Your task to perform on an android device: Play the last video I watched on Youtube Image 0: 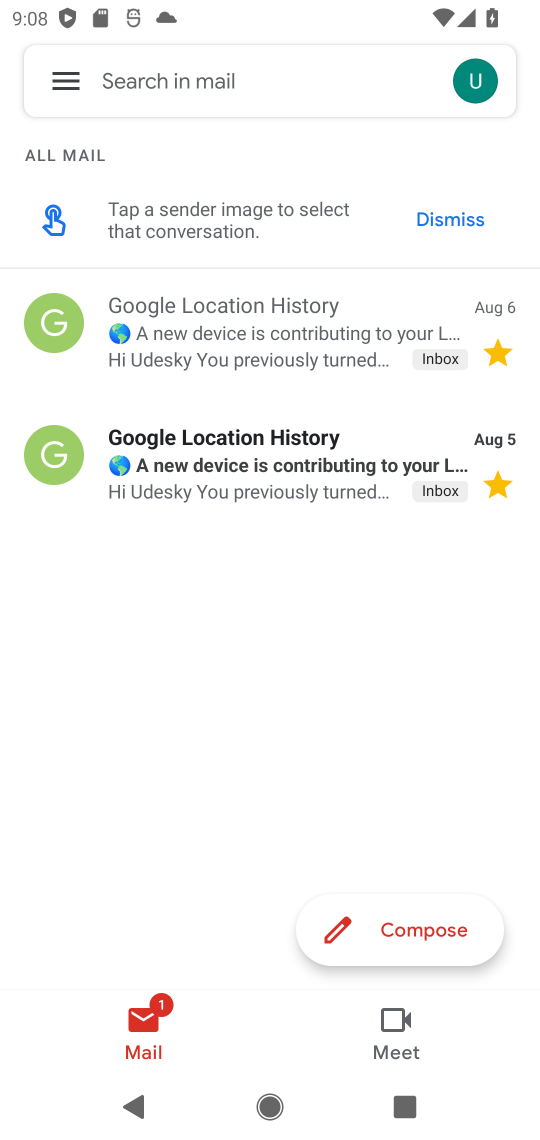
Step 0: press home button
Your task to perform on an android device: Play the last video I watched on Youtube Image 1: 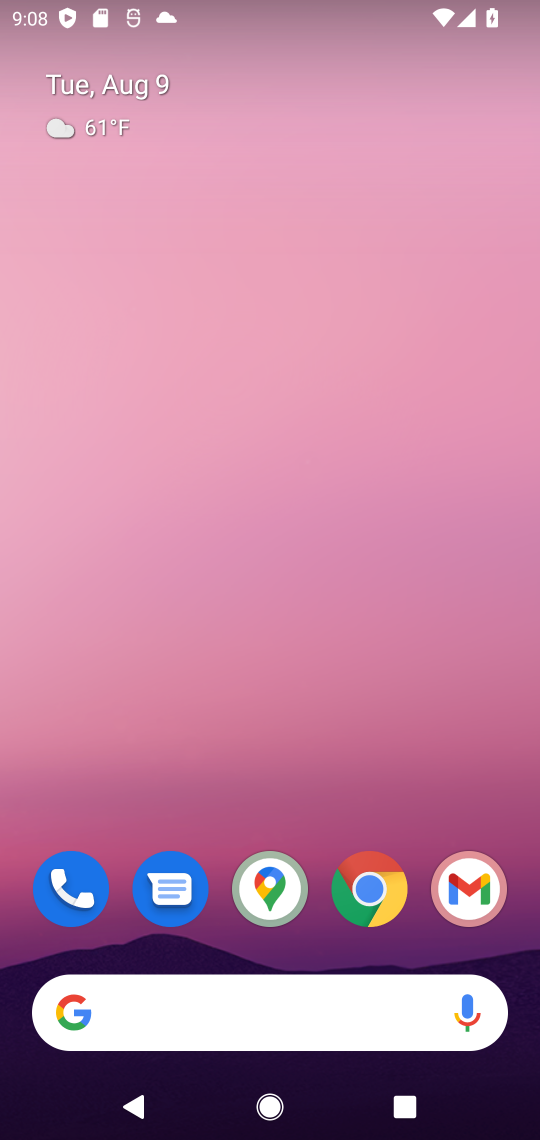
Step 1: drag from (367, 868) to (360, 208)
Your task to perform on an android device: Play the last video I watched on Youtube Image 2: 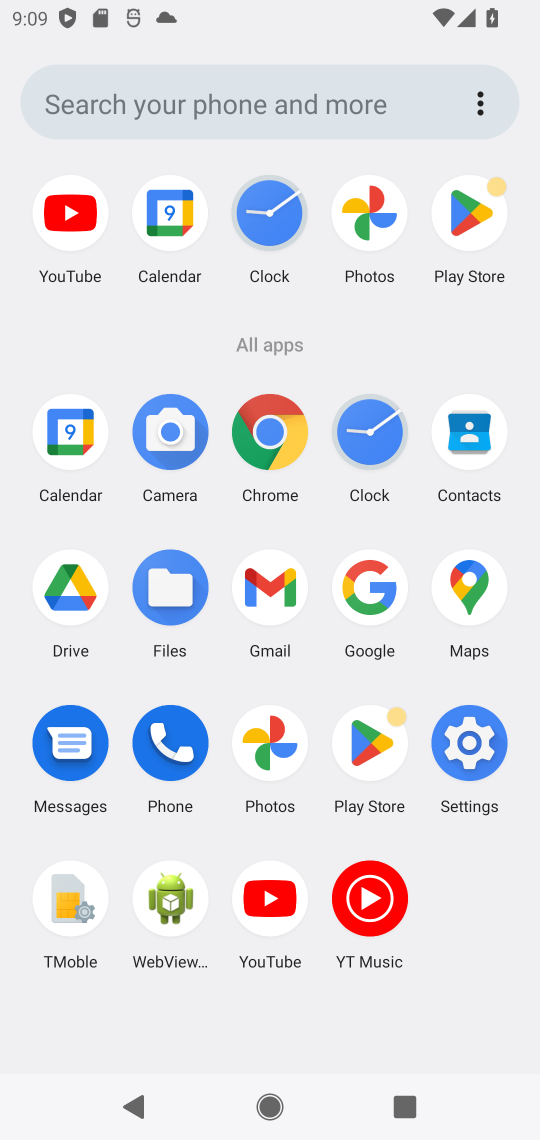
Step 2: click (187, 912)
Your task to perform on an android device: Play the last video I watched on Youtube Image 3: 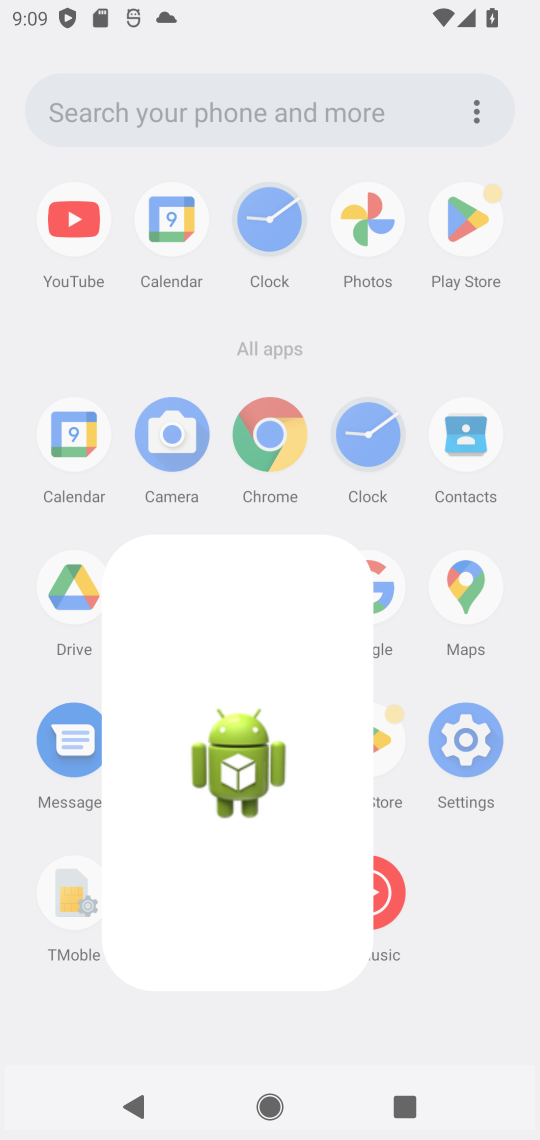
Step 3: click (250, 908)
Your task to perform on an android device: Play the last video I watched on Youtube Image 4: 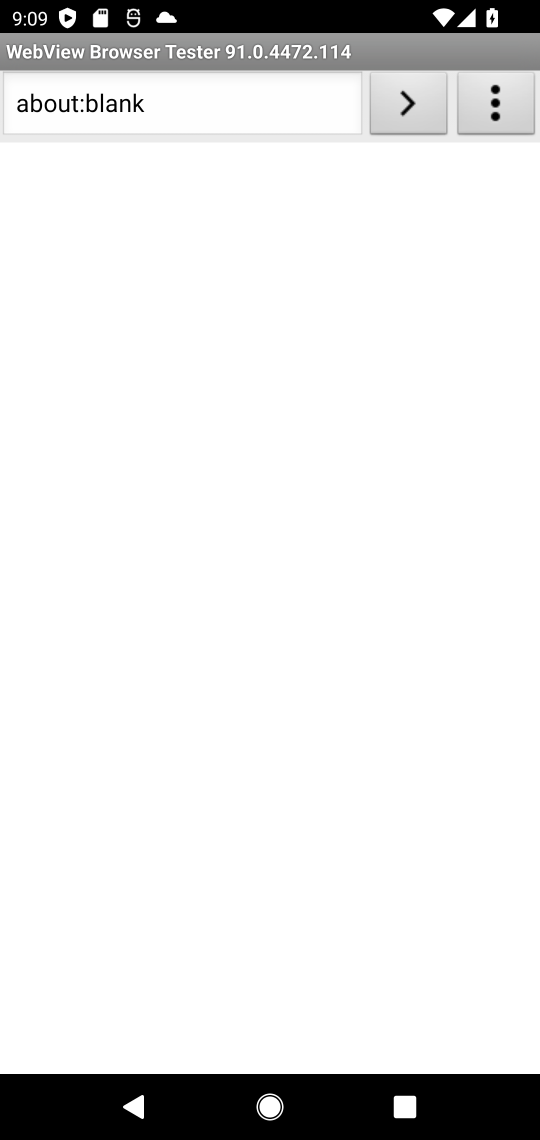
Step 4: press back button
Your task to perform on an android device: Play the last video I watched on Youtube Image 5: 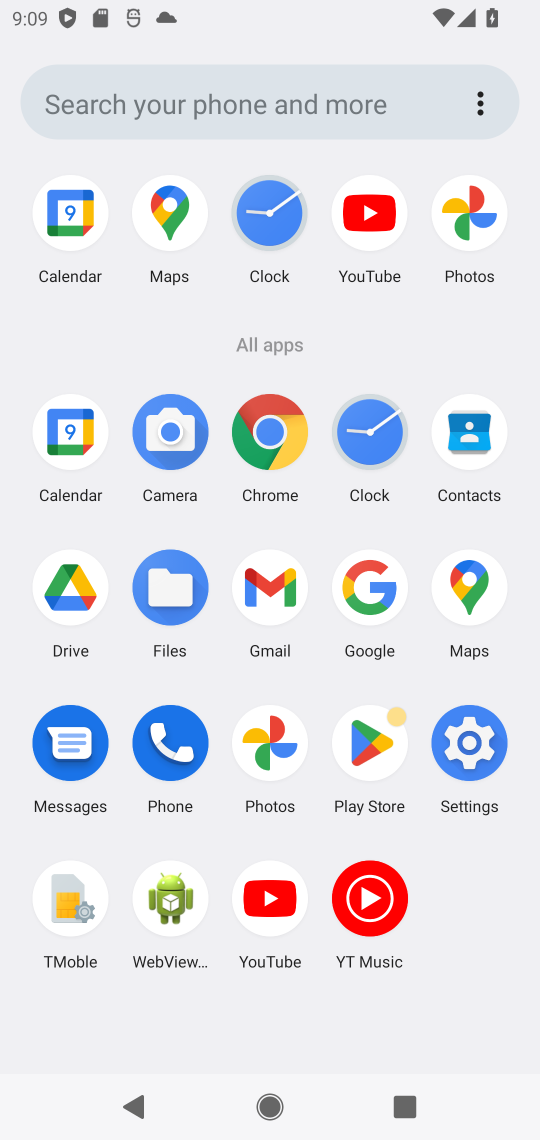
Step 5: click (289, 910)
Your task to perform on an android device: Play the last video I watched on Youtube Image 6: 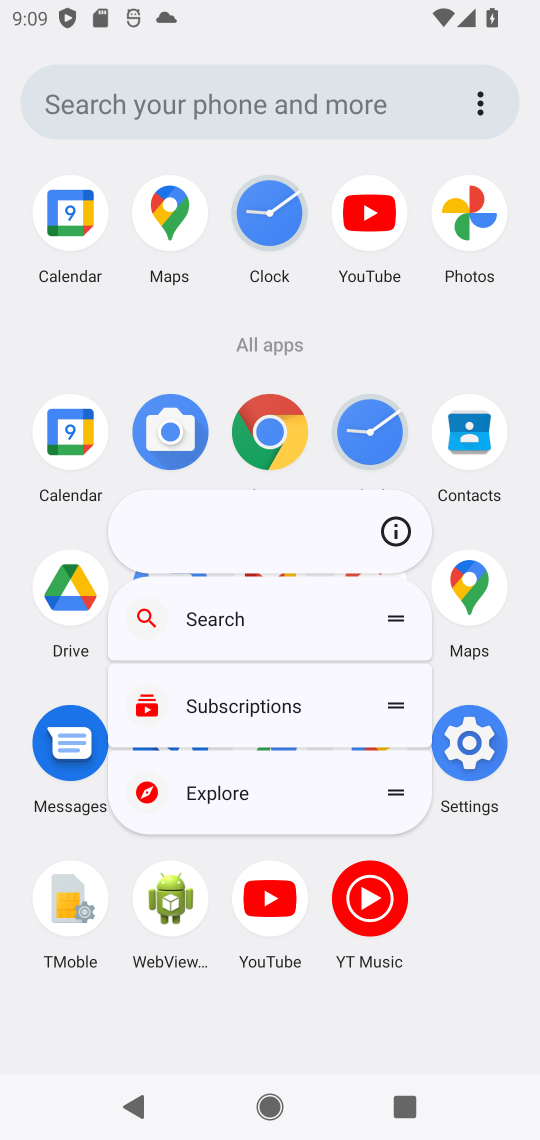
Step 6: click (275, 894)
Your task to perform on an android device: Play the last video I watched on Youtube Image 7: 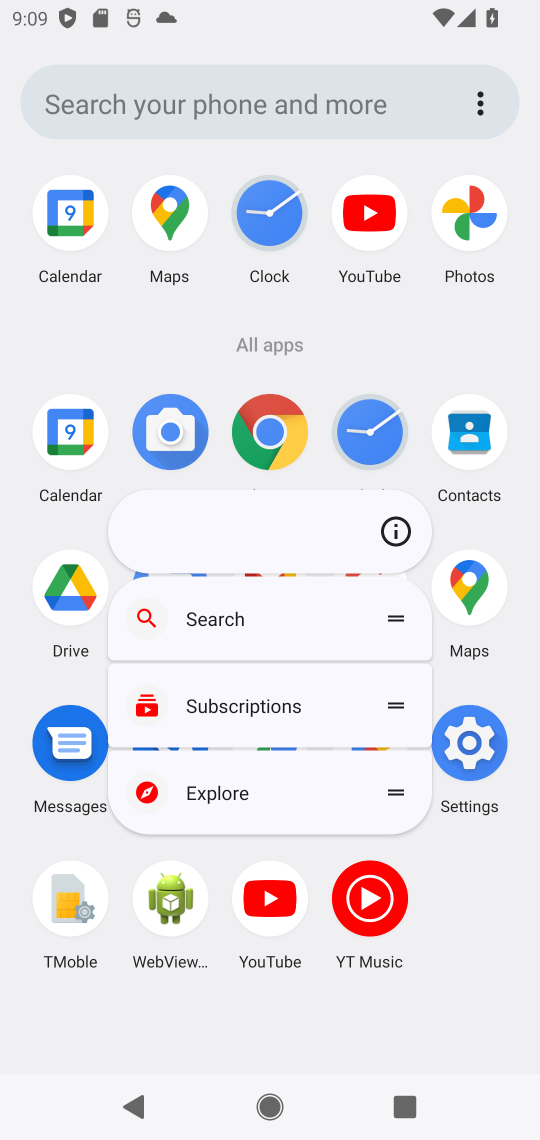
Step 7: click (276, 893)
Your task to perform on an android device: Play the last video I watched on Youtube Image 8: 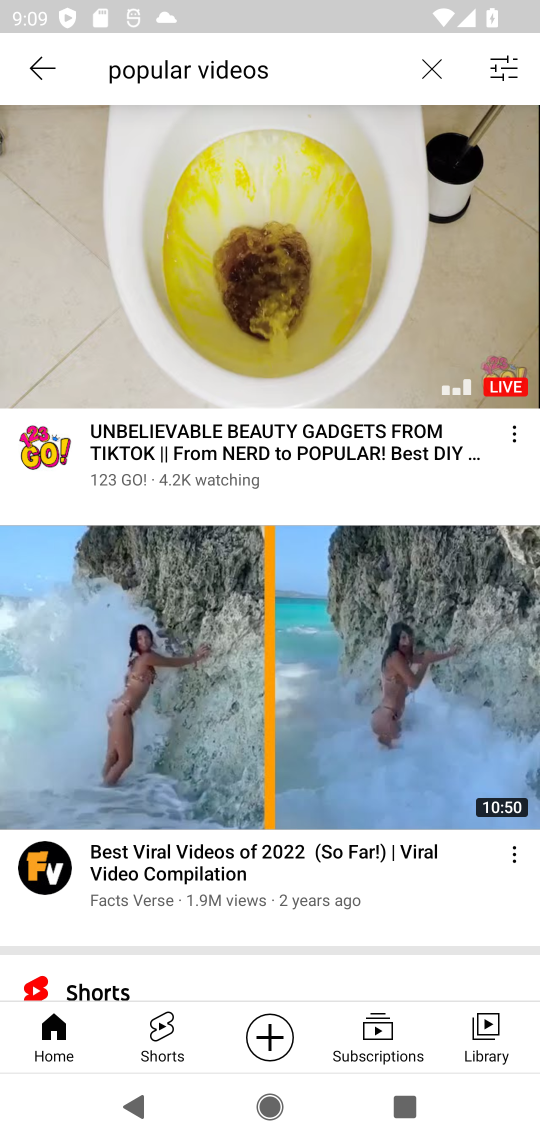
Step 8: click (489, 1030)
Your task to perform on an android device: Play the last video I watched on Youtube Image 9: 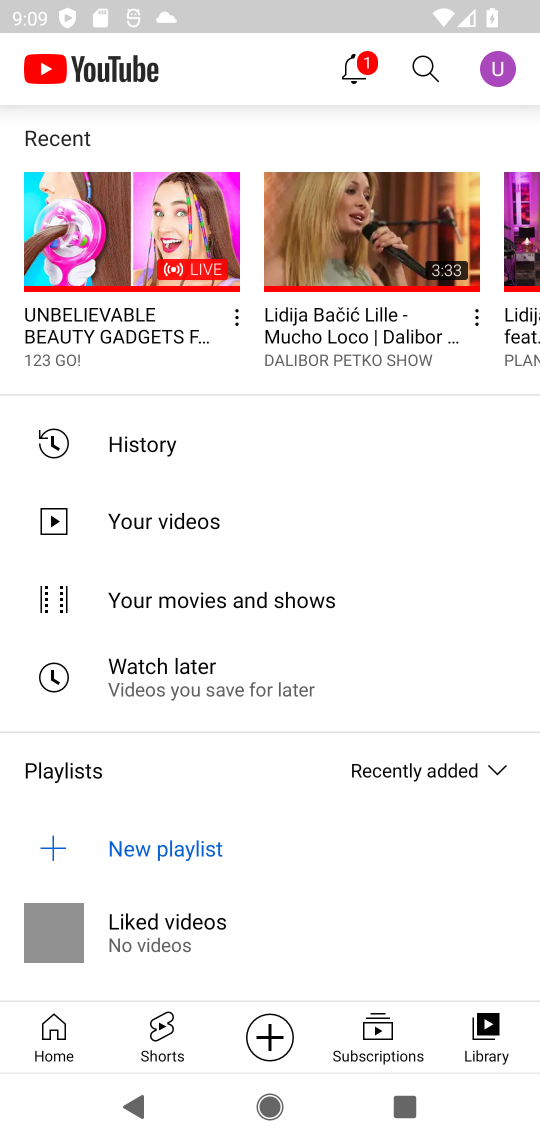
Step 9: click (153, 266)
Your task to perform on an android device: Play the last video I watched on Youtube Image 10: 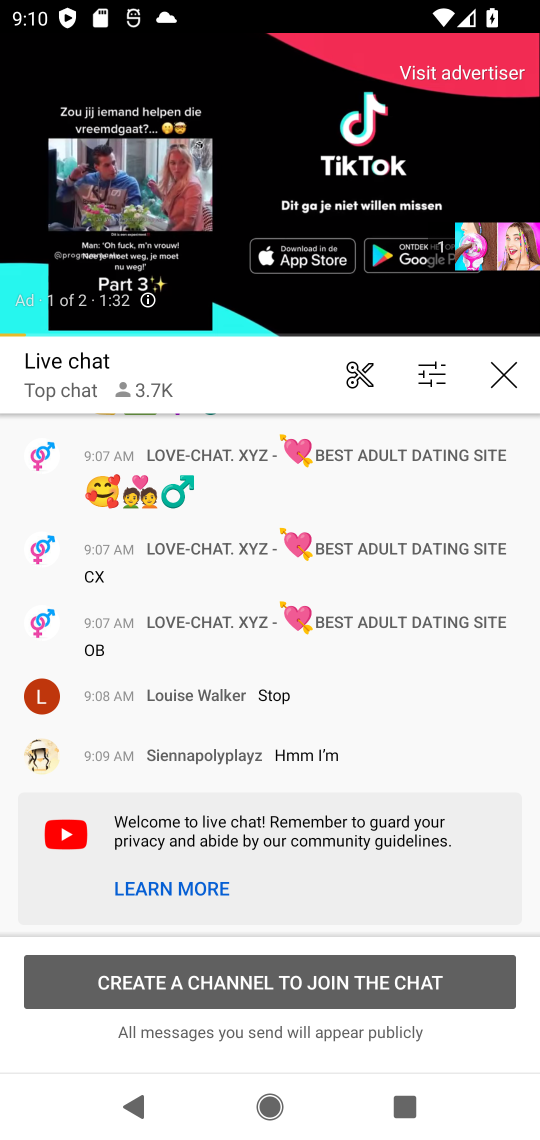
Step 10: task complete